Your task to perform on an android device: open device folders in google photos Image 0: 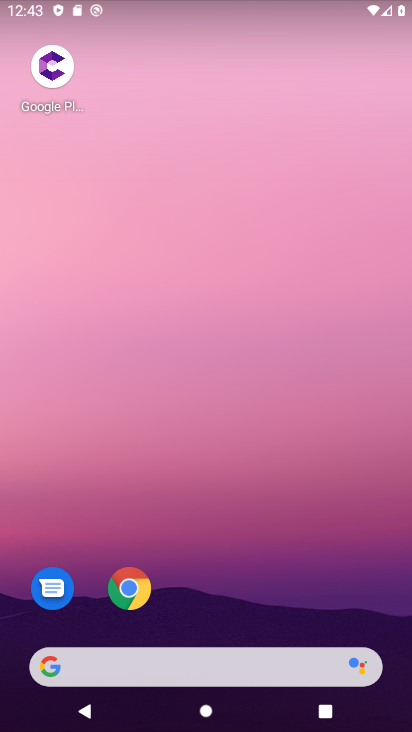
Step 0: drag from (212, 609) to (105, 39)
Your task to perform on an android device: open device folders in google photos Image 1: 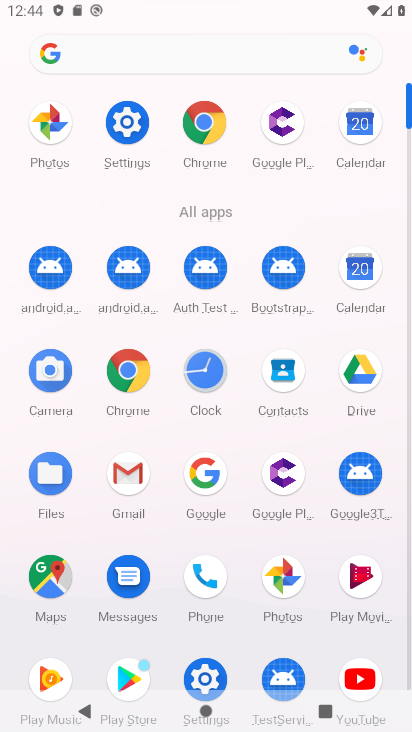
Step 1: click (40, 133)
Your task to perform on an android device: open device folders in google photos Image 2: 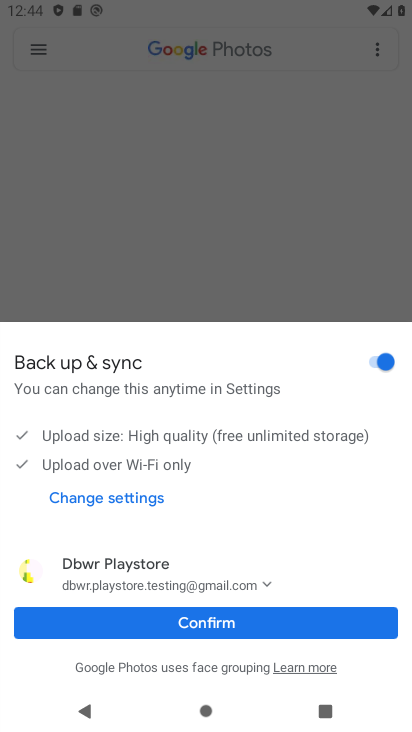
Step 2: click (216, 619)
Your task to perform on an android device: open device folders in google photos Image 3: 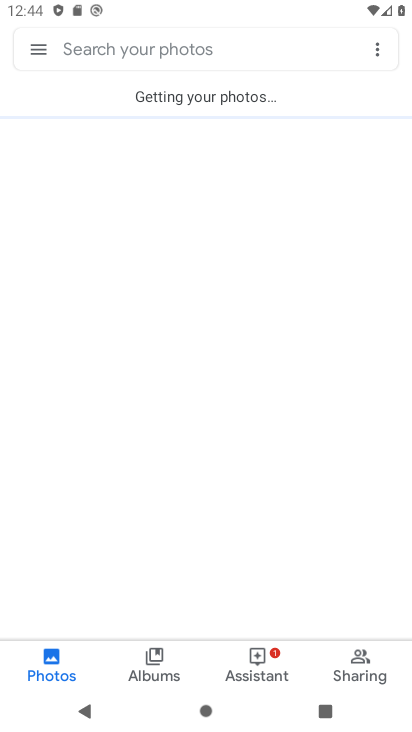
Step 3: click (38, 54)
Your task to perform on an android device: open device folders in google photos Image 4: 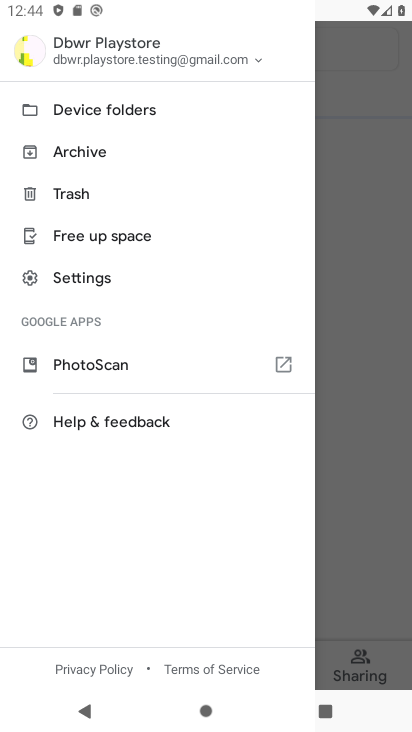
Step 4: click (118, 112)
Your task to perform on an android device: open device folders in google photos Image 5: 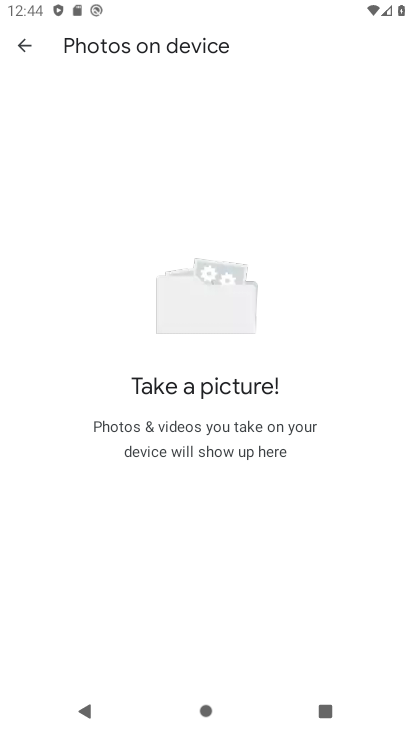
Step 5: task complete